Your task to perform on an android device: open the mobile data screen to see how much data has been used Image 0: 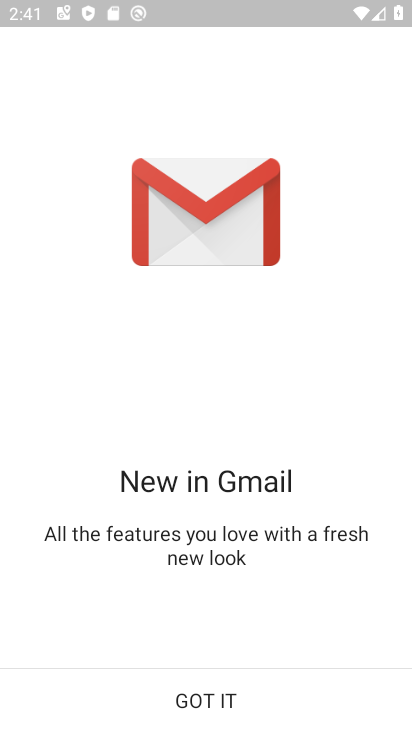
Step 0: click (193, 703)
Your task to perform on an android device: open the mobile data screen to see how much data has been used Image 1: 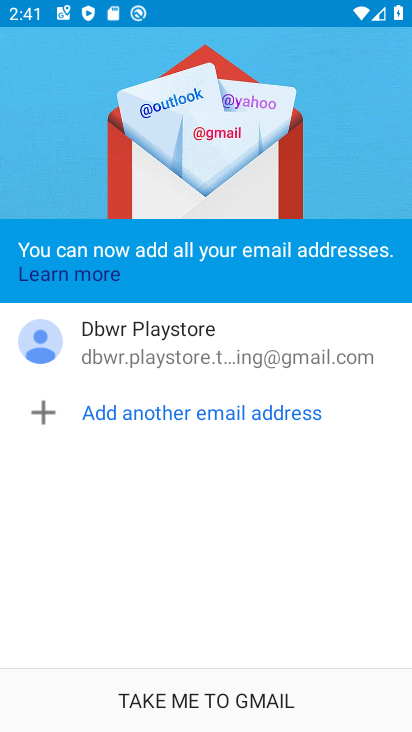
Step 1: click (193, 700)
Your task to perform on an android device: open the mobile data screen to see how much data has been used Image 2: 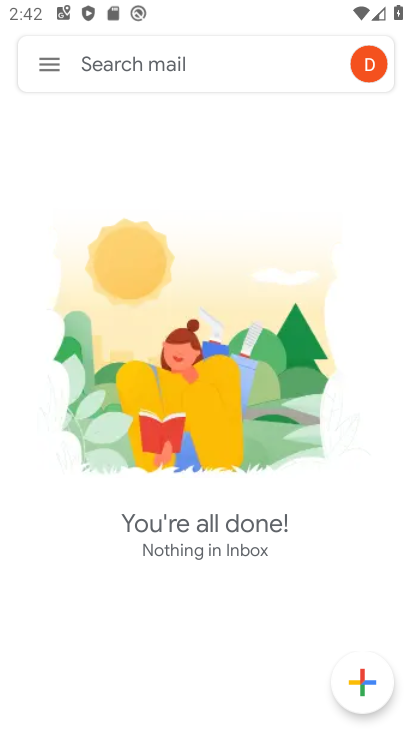
Step 2: press home button
Your task to perform on an android device: open the mobile data screen to see how much data has been used Image 3: 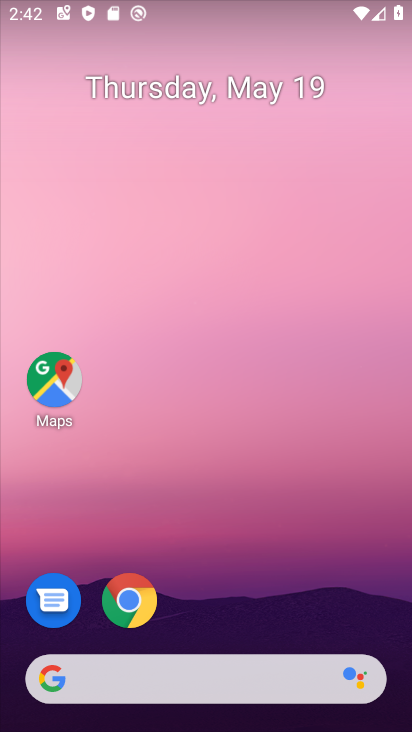
Step 3: drag from (388, 680) to (387, 320)
Your task to perform on an android device: open the mobile data screen to see how much data has been used Image 4: 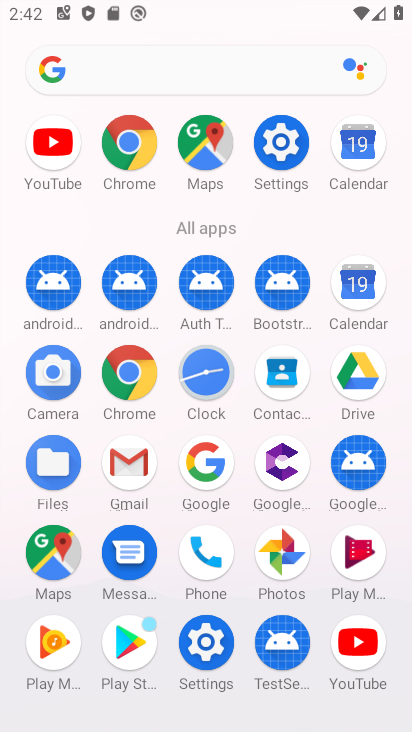
Step 4: click (290, 132)
Your task to perform on an android device: open the mobile data screen to see how much data has been used Image 5: 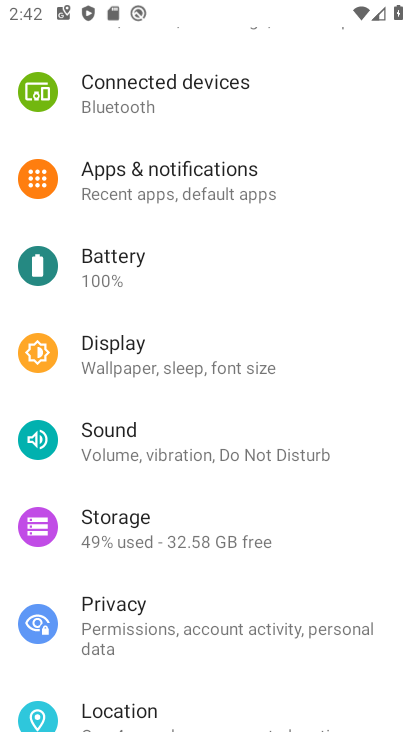
Step 5: drag from (348, 140) to (350, 494)
Your task to perform on an android device: open the mobile data screen to see how much data has been used Image 6: 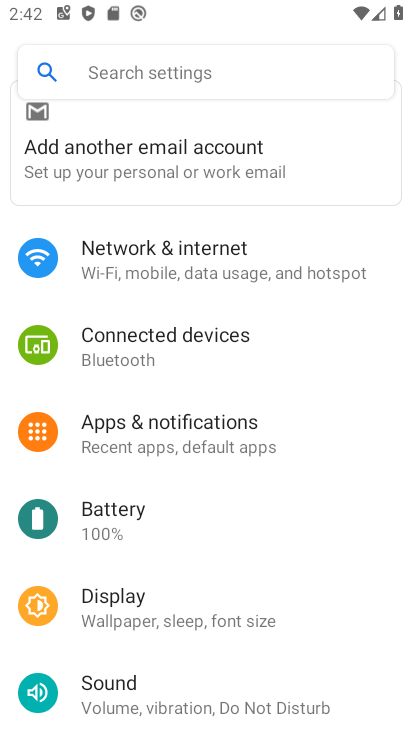
Step 6: click (204, 258)
Your task to perform on an android device: open the mobile data screen to see how much data has been used Image 7: 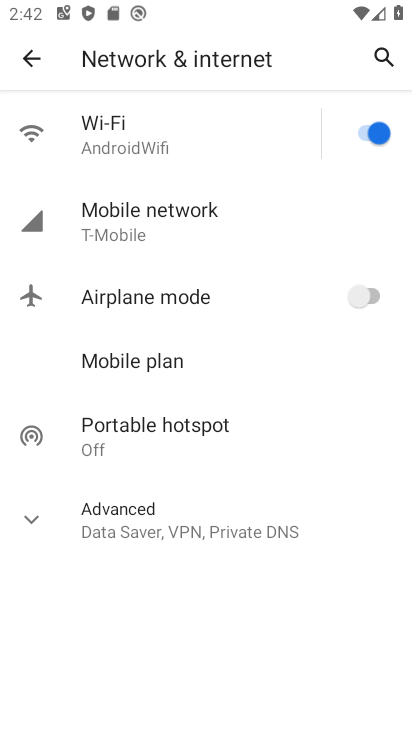
Step 7: click (136, 231)
Your task to perform on an android device: open the mobile data screen to see how much data has been used Image 8: 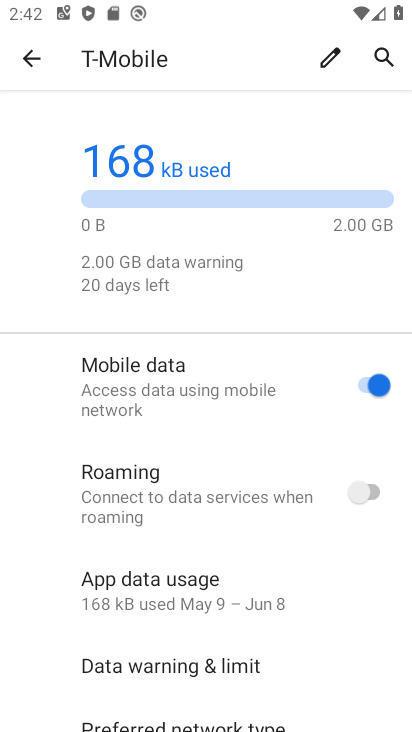
Step 8: task complete